Your task to perform on an android device: toggle notification dots Image 0: 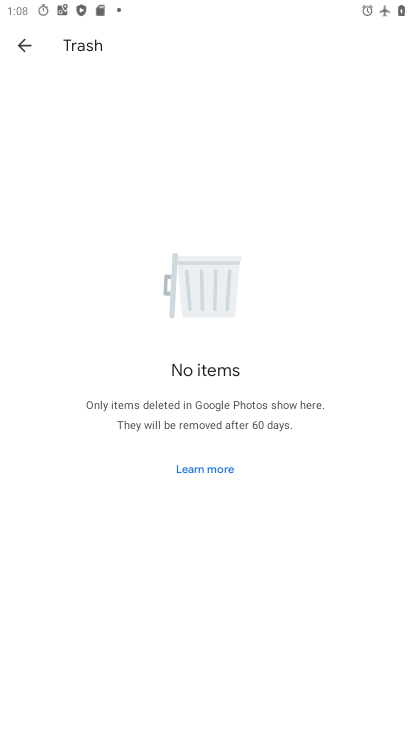
Step 0: press home button
Your task to perform on an android device: toggle notification dots Image 1: 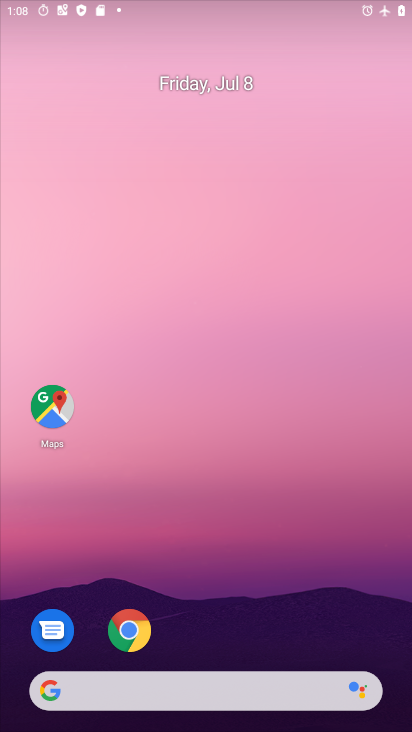
Step 1: drag from (201, 632) to (241, 188)
Your task to perform on an android device: toggle notification dots Image 2: 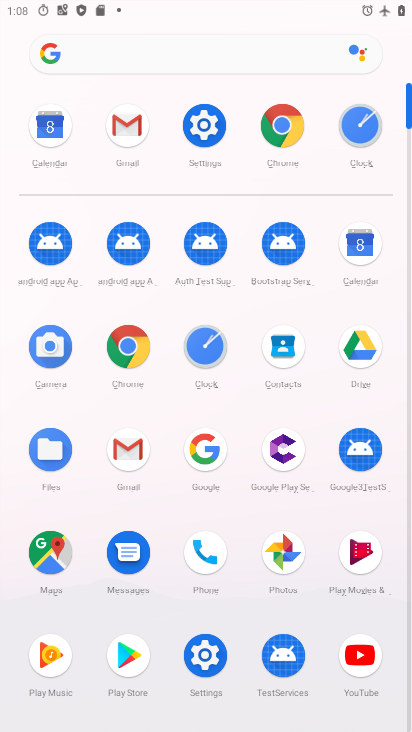
Step 2: click (219, 121)
Your task to perform on an android device: toggle notification dots Image 3: 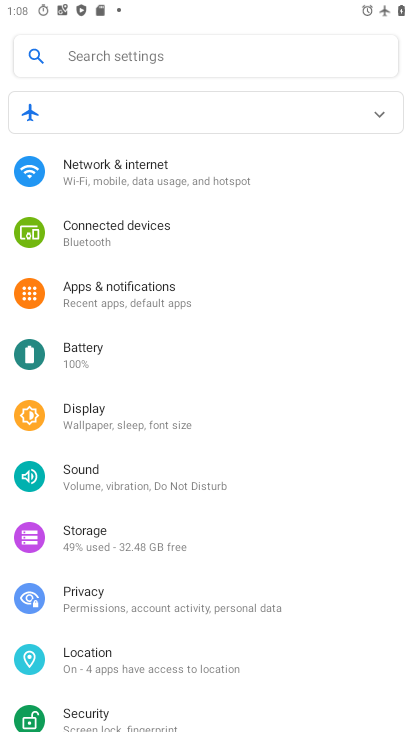
Step 3: click (121, 280)
Your task to perform on an android device: toggle notification dots Image 4: 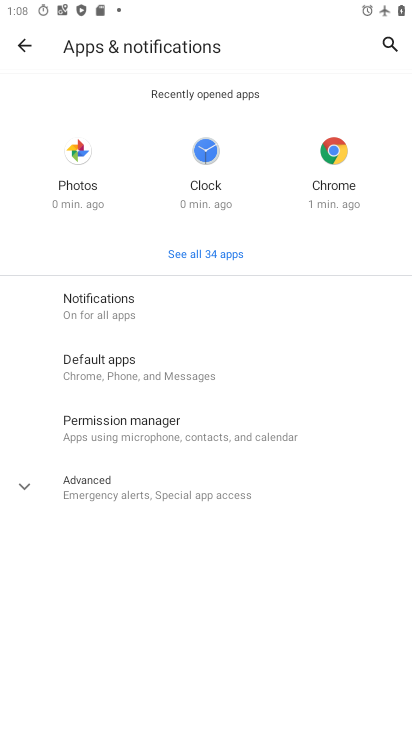
Step 4: click (68, 488)
Your task to perform on an android device: toggle notification dots Image 5: 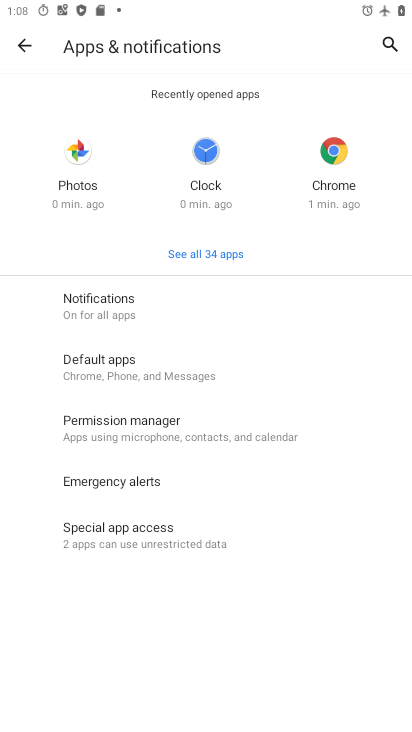
Step 5: click (207, 313)
Your task to perform on an android device: toggle notification dots Image 6: 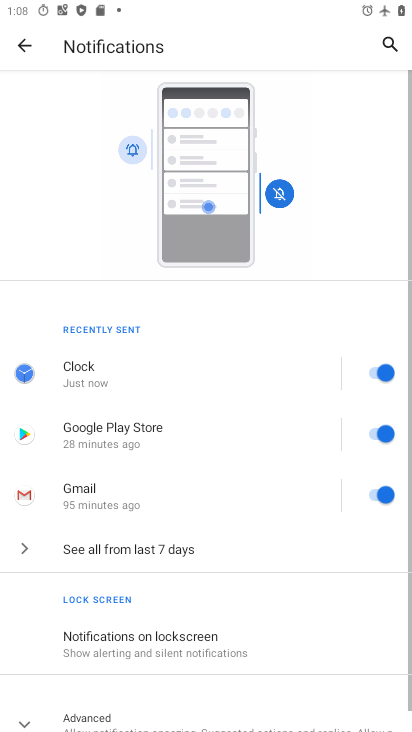
Step 6: drag from (172, 611) to (217, 352)
Your task to perform on an android device: toggle notification dots Image 7: 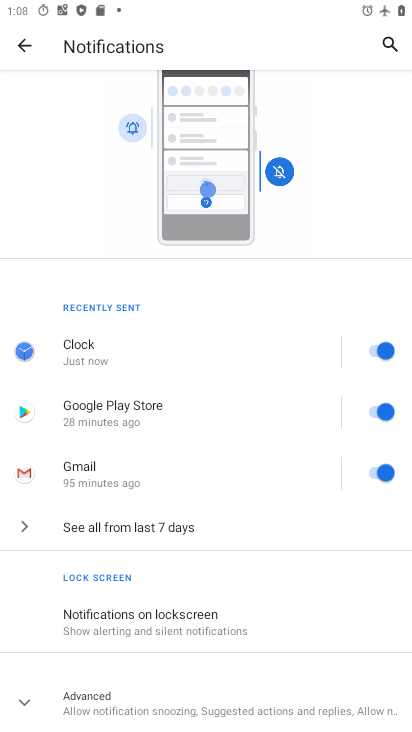
Step 7: click (119, 693)
Your task to perform on an android device: toggle notification dots Image 8: 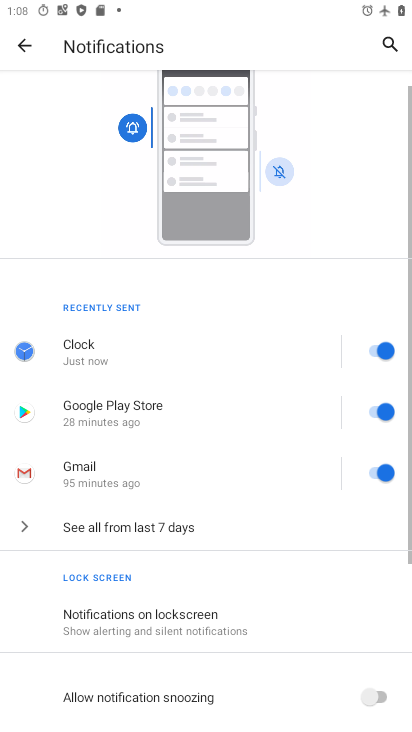
Step 8: drag from (118, 653) to (210, 349)
Your task to perform on an android device: toggle notification dots Image 9: 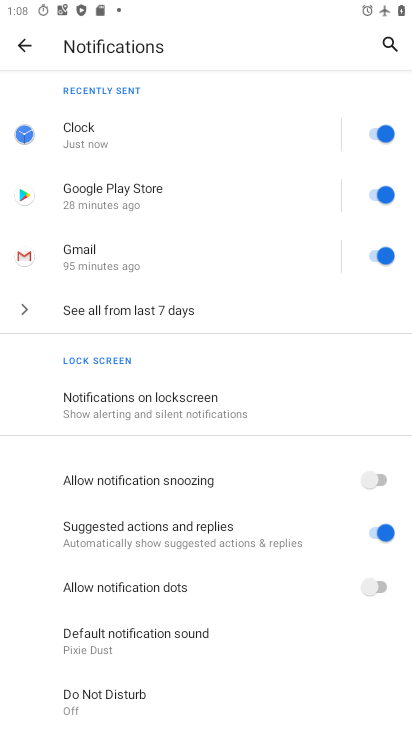
Step 9: click (383, 580)
Your task to perform on an android device: toggle notification dots Image 10: 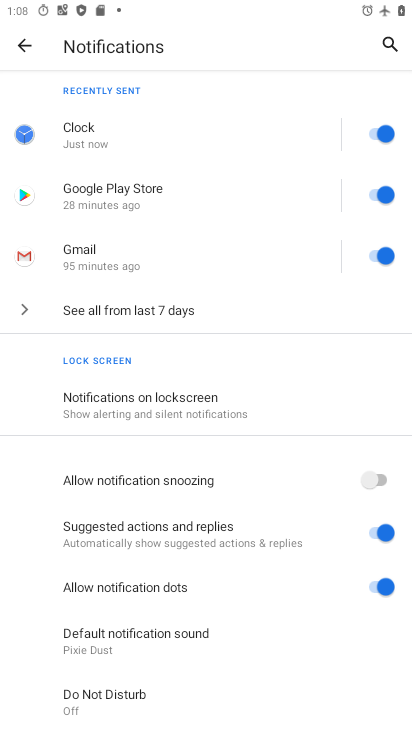
Step 10: task complete